Your task to perform on an android device: Open network settings Image 0: 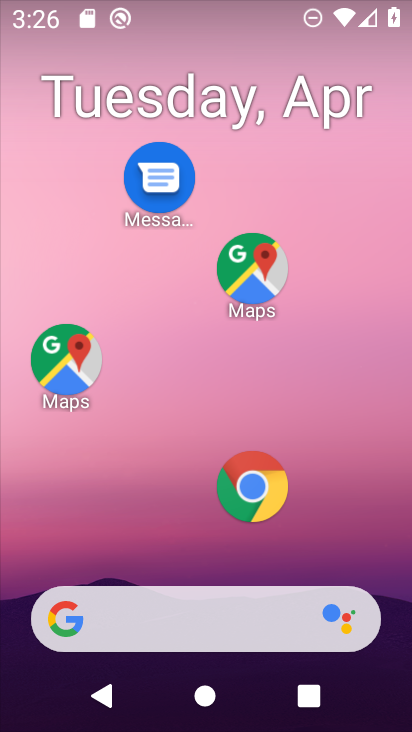
Step 0: drag from (274, 459) to (299, 124)
Your task to perform on an android device: Open network settings Image 1: 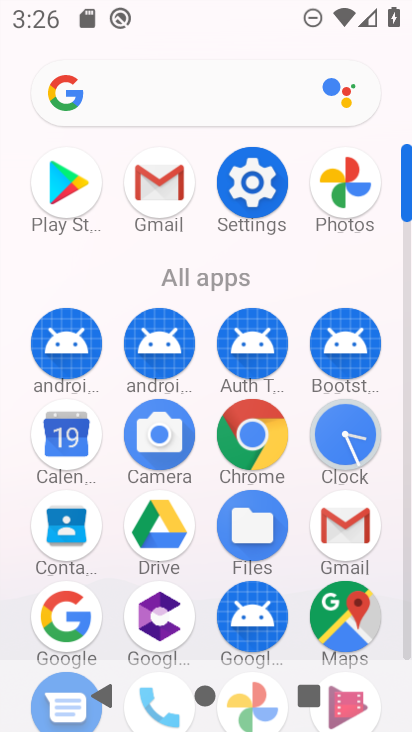
Step 1: click (269, 208)
Your task to perform on an android device: Open network settings Image 2: 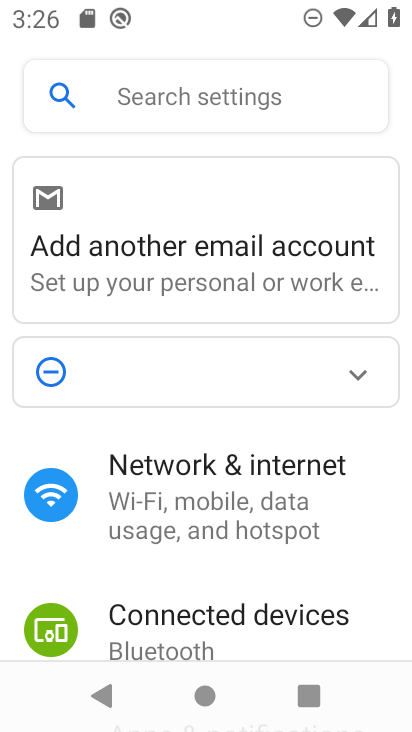
Step 2: drag from (205, 573) to (249, 349)
Your task to perform on an android device: Open network settings Image 3: 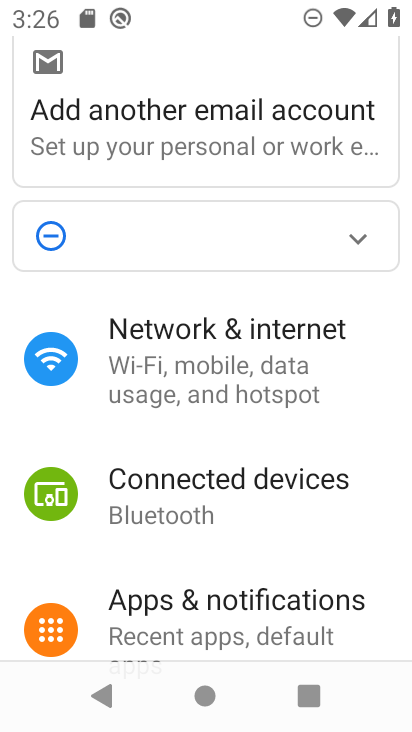
Step 3: click (239, 352)
Your task to perform on an android device: Open network settings Image 4: 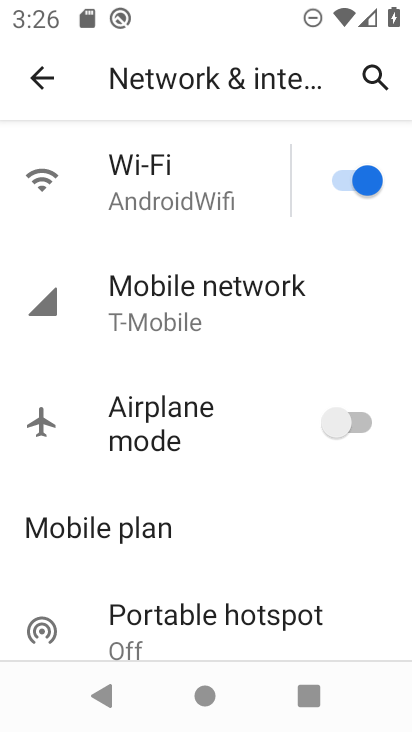
Step 4: task complete